Your task to perform on an android device: turn on the 12-hour format for clock Image 0: 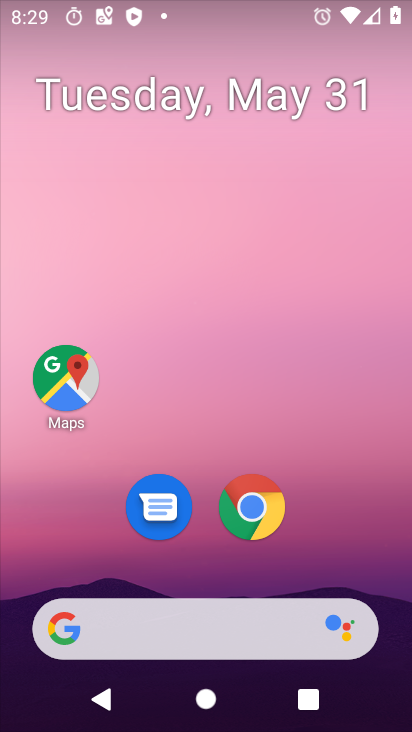
Step 0: drag from (353, 416) to (342, 1)
Your task to perform on an android device: turn on the 12-hour format for clock Image 1: 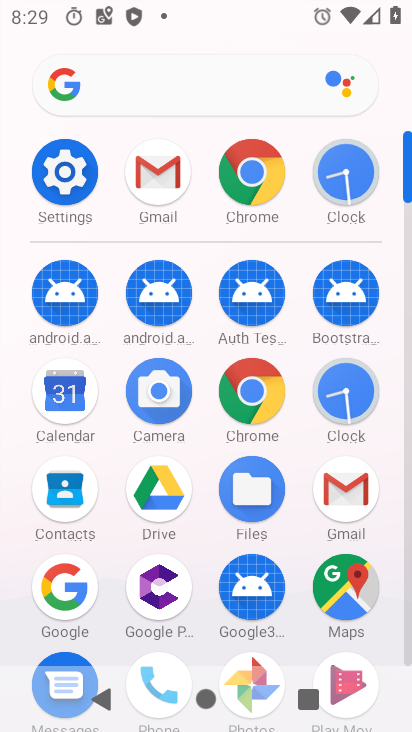
Step 1: click (341, 178)
Your task to perform on an android device: turn on the 12-hour format for clock Image 2: 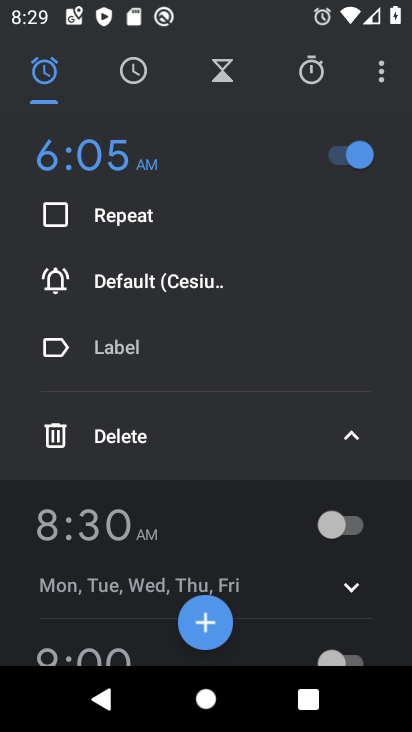
Step 2: click (377, 76)
Your task to perform on an android device: turn on the 12-hour format for clock Image 3: 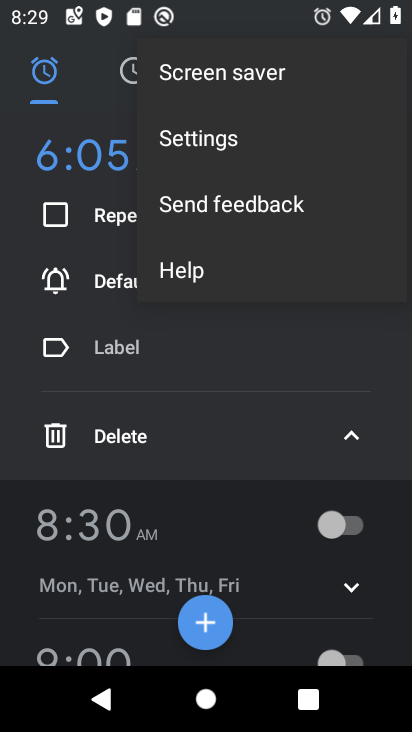
Step 3: click (198, 149)
Your task to perform on an android device: turn on the 12-hour format for clock Image 4: 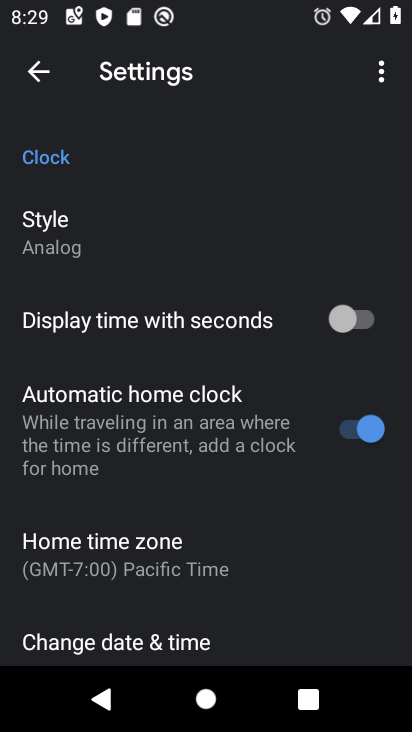
Step 4: drag from (147, 476) to (120, 102)
Your task to perform on an android device: turn on the 12-hour format for clock Image 5: 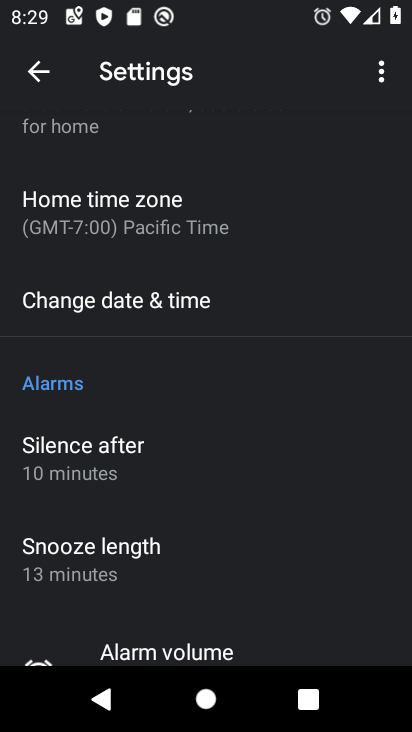
Step 5: click (102, 312)
Your task to perform on an android device: turn on the 12-hour format for clock Image 6: 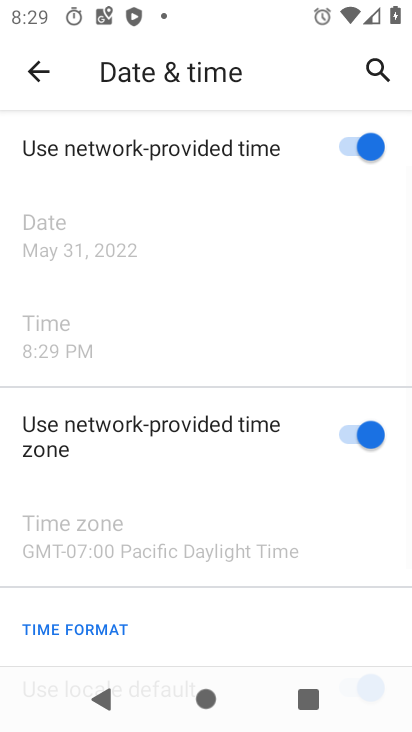
Step 6: task complete